Your task to perform on an android device: read, delete, or share a saved page in the chrome app Image 0: 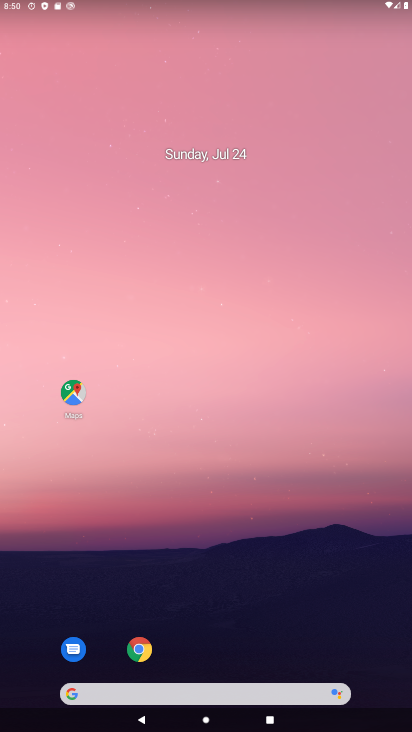
Step 0: click (122, 639)
Your task to perform on an android device: read, delete, or share a saved page in the chrome app Image 1: 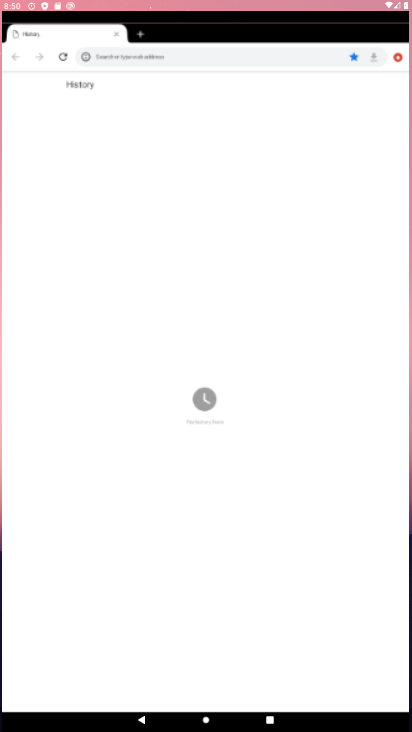
Step 1: click (149, 653)
Your task to perform on an android device: read, delete, or share a saved page in the chrome app Image 2: 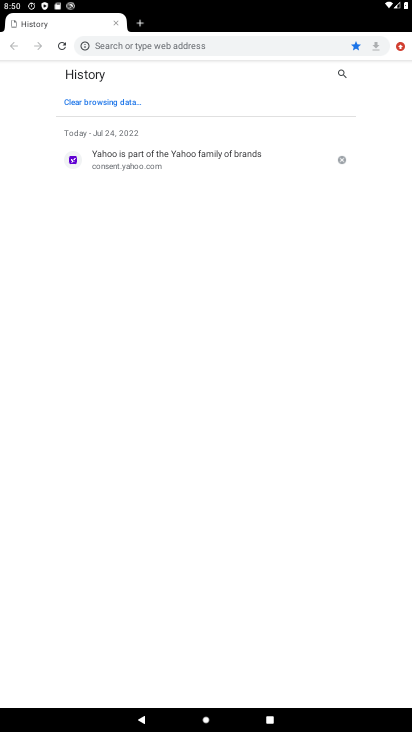
Step 2: click (399, 42)
Your task to perform on an android device: read, delete, or share a saved page in the chrome app Image 3: 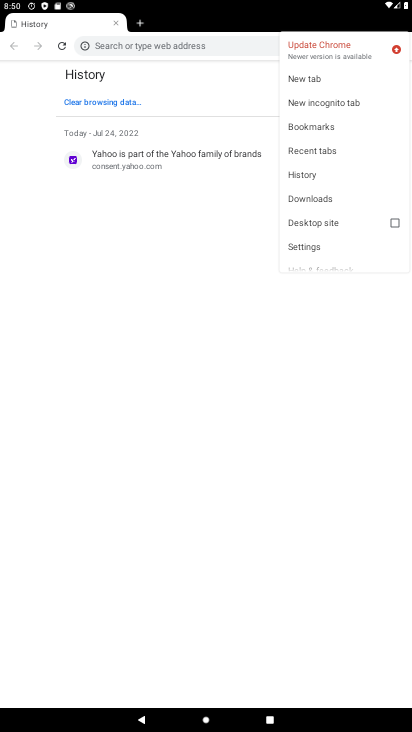
Step 3: drag from (342, 253) to (345, 142)
Your task to perform on an android device: read, delete, or share a saved page in the chrome app Image 4: 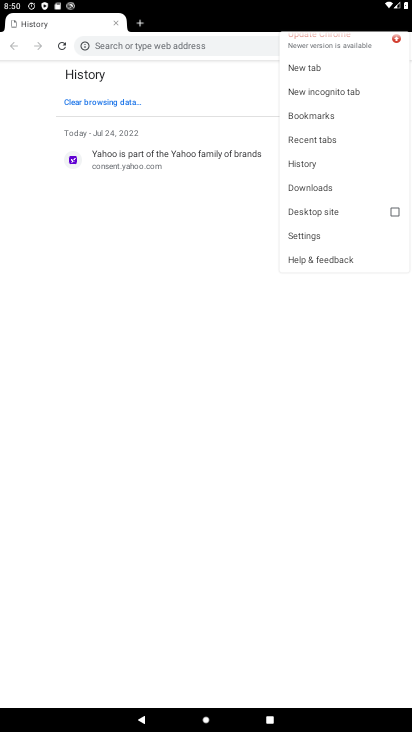
Step 4: click (307, 240)
Your task to perform on an android device: read, delete, or share a saved page in the chrome app Image 5: 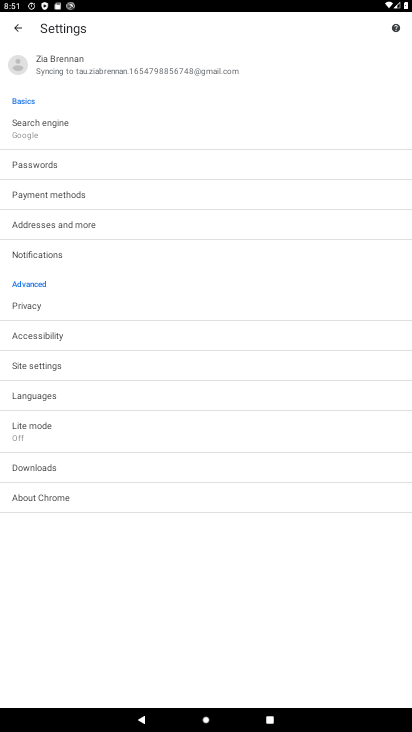
Step 5: click (54, 363)
Your task to perform on an android device: read, delete, or share a saved page in the chrome app Image 6: 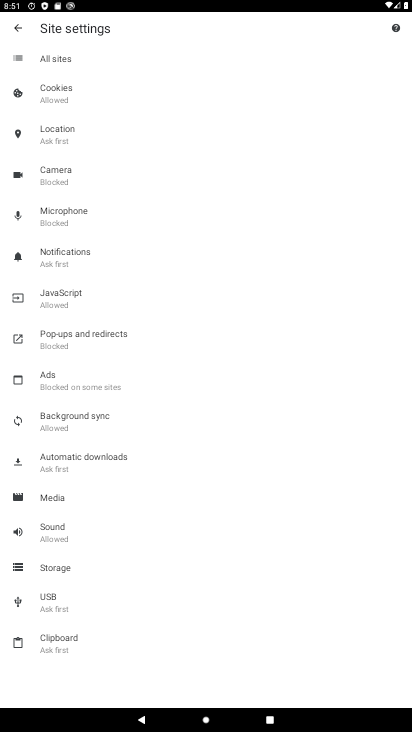
Step 6: task complete